Your task to perform on an android device: toggle data saver in the chrome app Image 0: 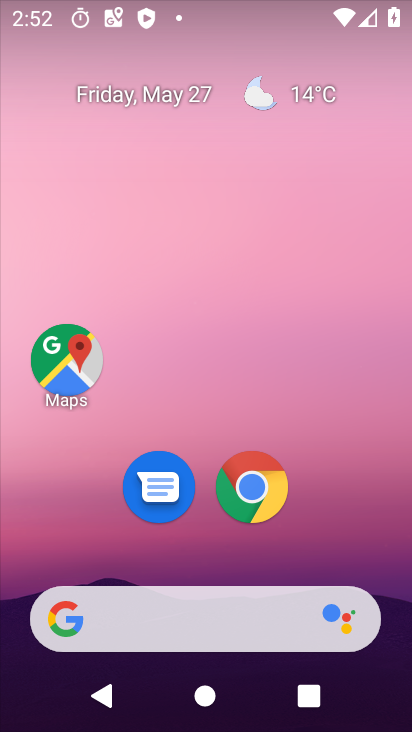
Step 0: click (231, 498)
Your task to perform on an android device: toggle data saver in the chrome app Image 1: 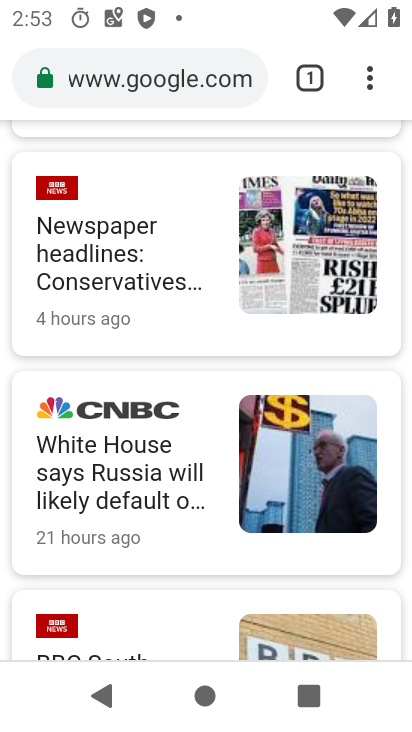
Step 1: click (376, 74)
Your task to perform on an android device: toggle data saver in the chrome app Image 2: 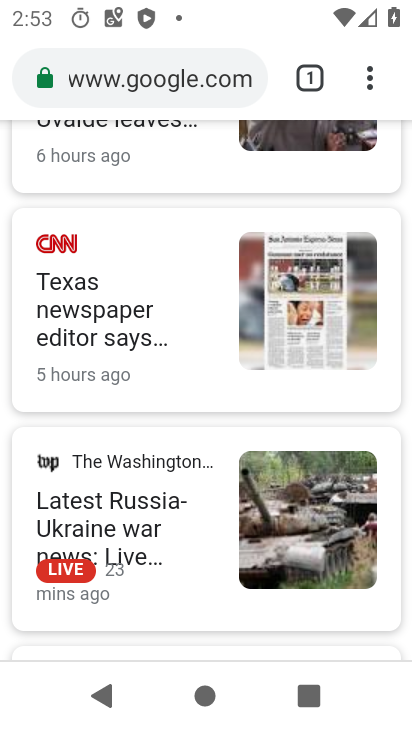
Step 2: drag from (370, 83) to (211, 548)
Your task to perform on an android device: toggle data saver in the chrome app Image 3: 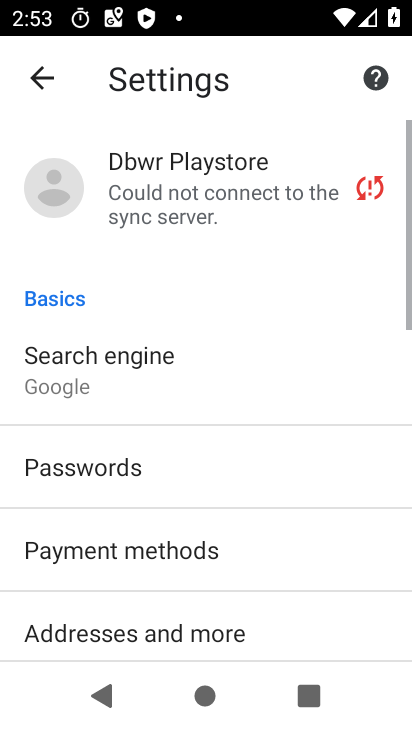
Step 3: drag from (210, 545) to (214, 4)
Your task to perform on an android device: toggle data saver in the chrome app Image 4: 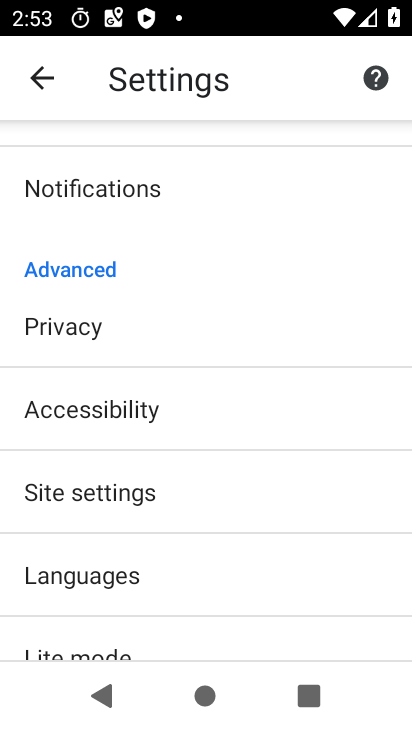
Step 4: drag from (195, 585) to (287, 132)
Your task to perform on an android device: toggle data saver in the chrome app Image 5: 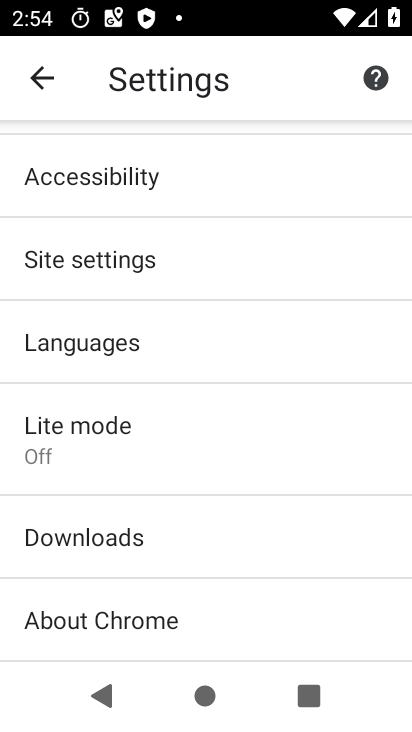
Step 5: click (147, 420)
Your task to perform on an android device: toggle data saver in the chrome app Image 6: 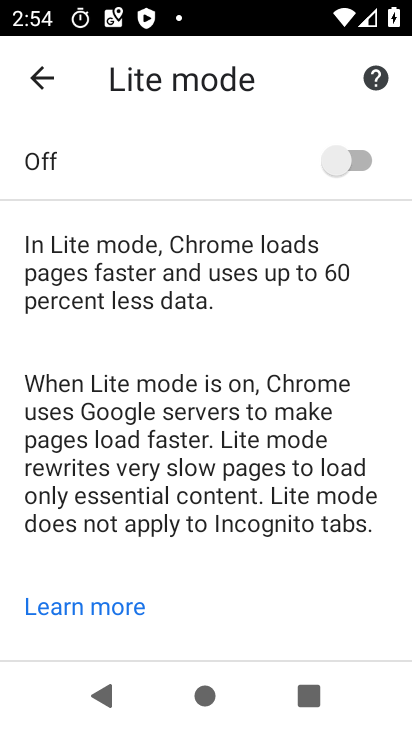
Step 6: click (332, 156)
Your task to perform on an android device: toggle data saver in the chrome app Image 7: 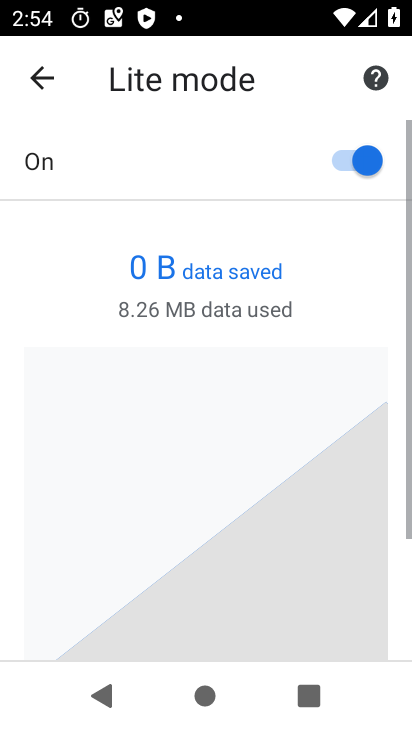
Step 7: task complete